Your task to perform on an android device: Show me popular videos on Youtube Image 0: 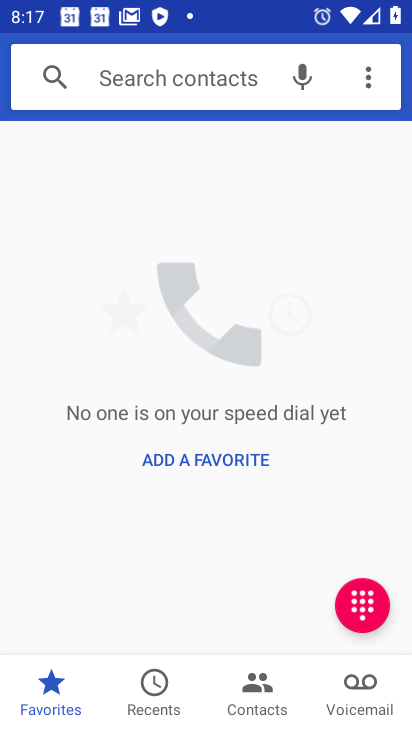
Step 0: press home button
Your task to perform on an android device: Show me popular videos on Youtube Image 1: 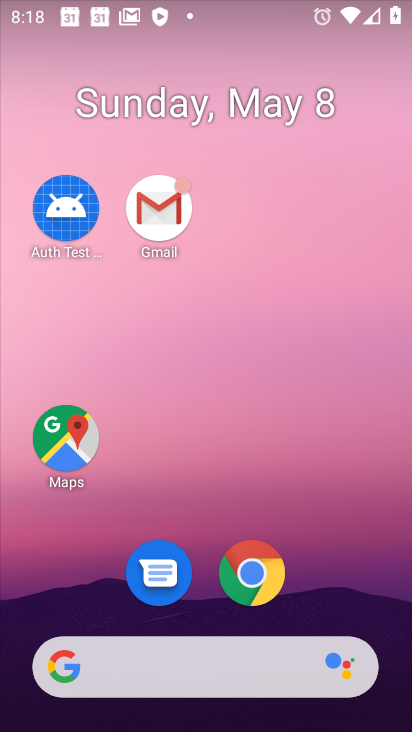
Step 1: drag from (326, 511) to (188, 60)
Your task to perform on an android device: Show me popular videos on Youtube Image 2: 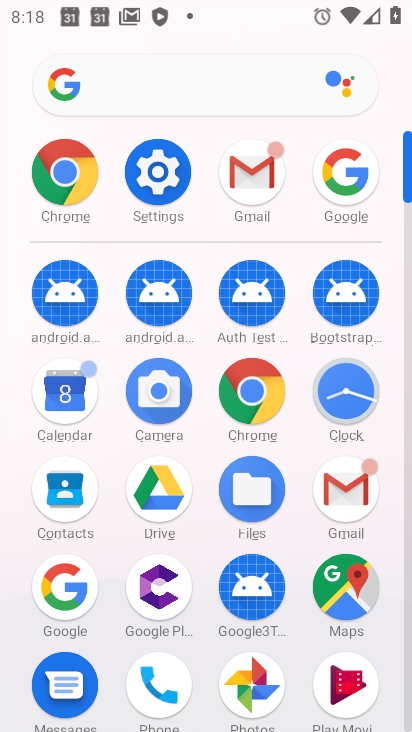
Step 2: drag from (306, 547) to (303, 187)
Your task to perform on an android device: Show me popular videos on Youtube Image 3: 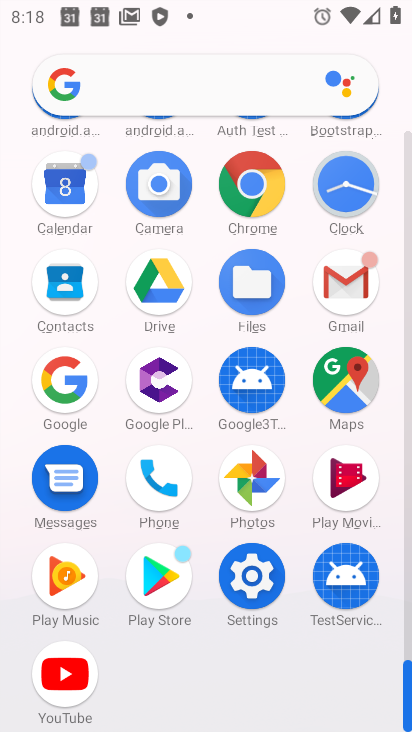
Step 3: drag from (304, 594) to (300, 107)
Your task to perform on an android device: Show me popular videos on Youtube Image 4: 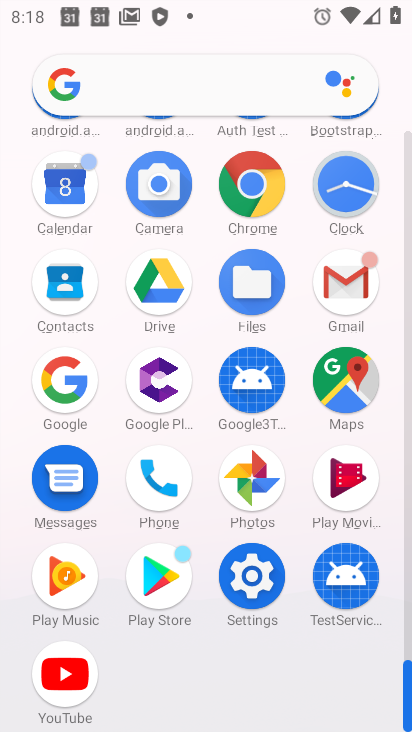
Step 4: click (60, 682)
Your task to perform on an android device: Show me popular videos on Youtube Image 5: 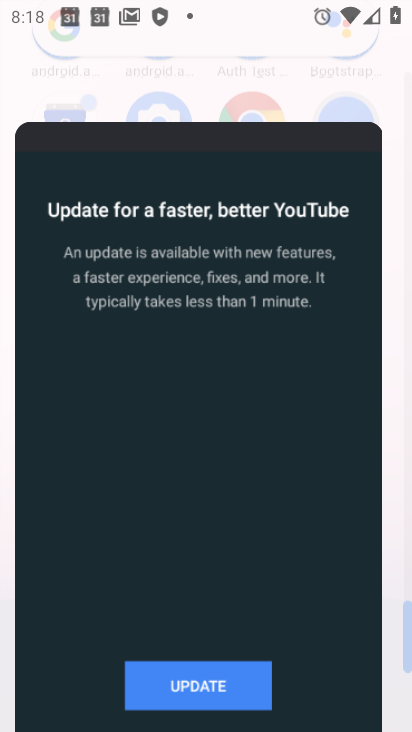
Step 5: click (60, 682)
Your task to perform on an android device: Show me popular videos on Youtube Image 6: 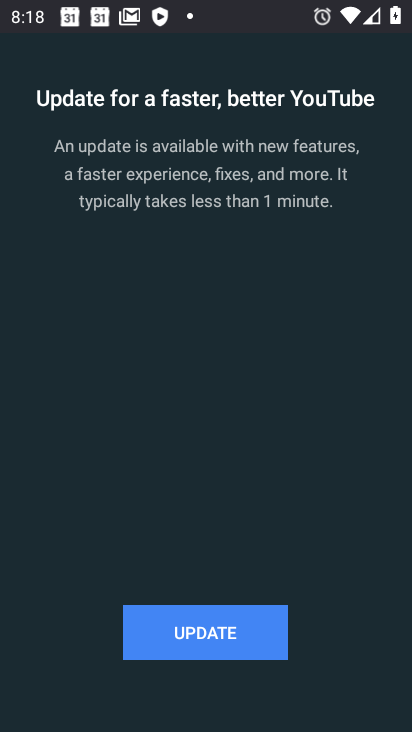
Step 6: click (203, 636)
Your task to perform on an android device: Show me popular videos on Youtube Image 7: 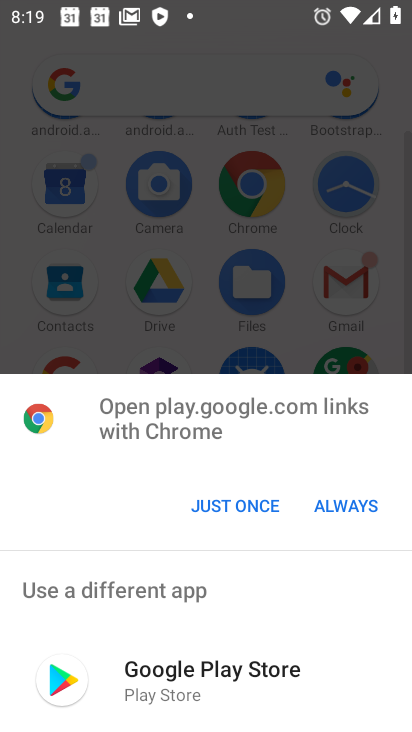
Step 7: click (234, 510)
Your task to perform on an android device: Show me popular videos on Youtube Image 8: 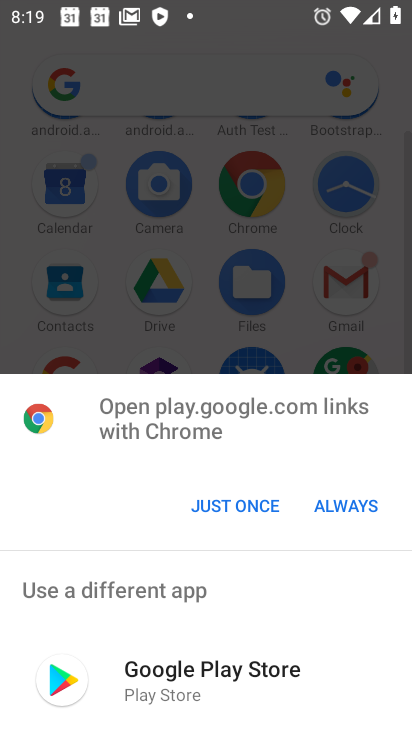
Step 8: click (235, 510)
Your task to perform on an android device: Show me popular videos on Youtube Image 9: 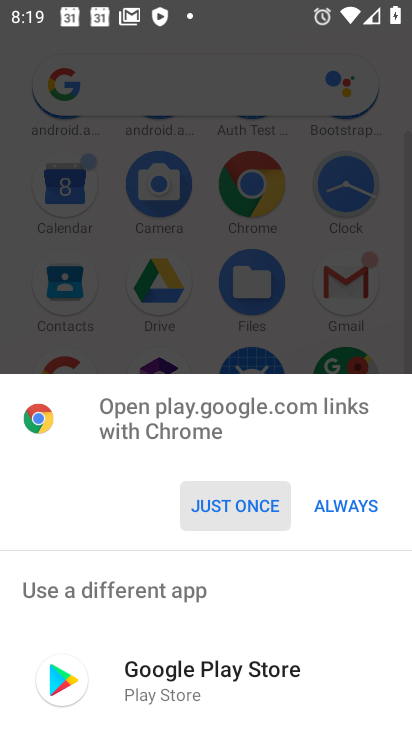
Step 9: click (235, 510)
Your task to perform on an android device: Show me popular videos on Youtube Image 10: 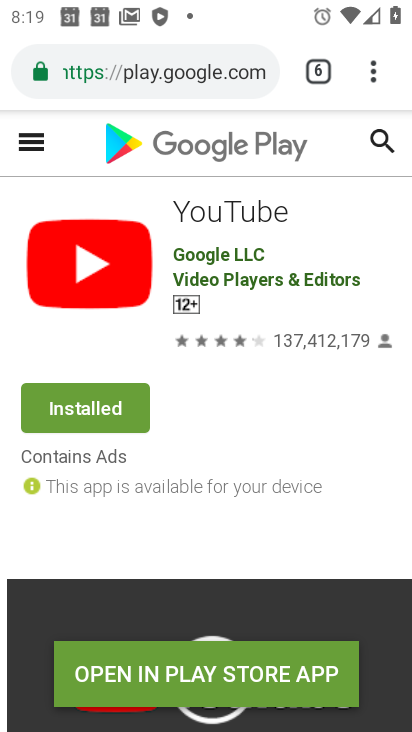
Step 10: click (94, 412)
Your task to perform on an android device: Show me popular videos on Youtube Image 11: 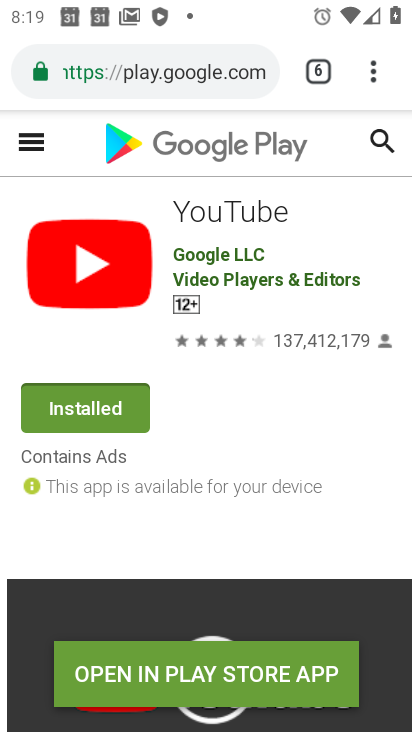
Step 11: click (93, 411)
Your task to perform on an android device: Show me popular videos on Youtube Image 12: 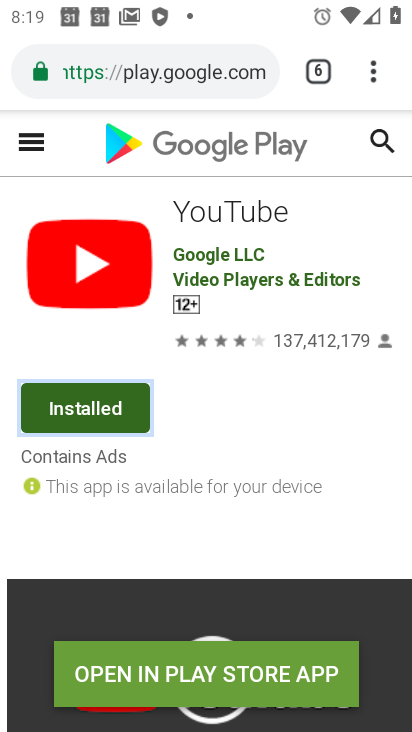
Step 12: click (93, 410)
Your task to perform on an android device: Show me popular videos on Youtube Image 13: 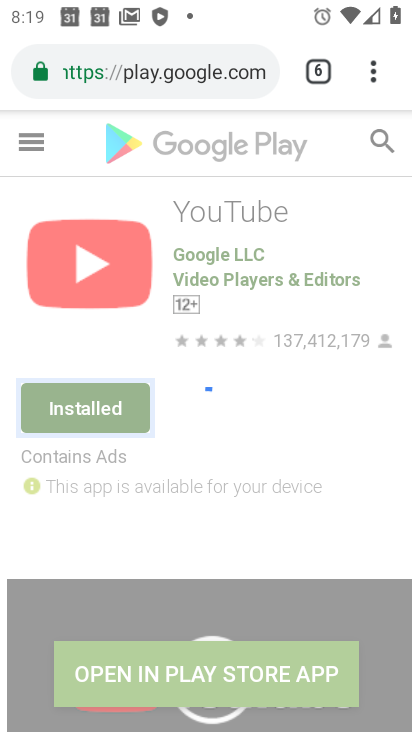
Step 13: click (93, 410)
Your task to perform on an android device: Show me popular videos on Youtube Image 14: 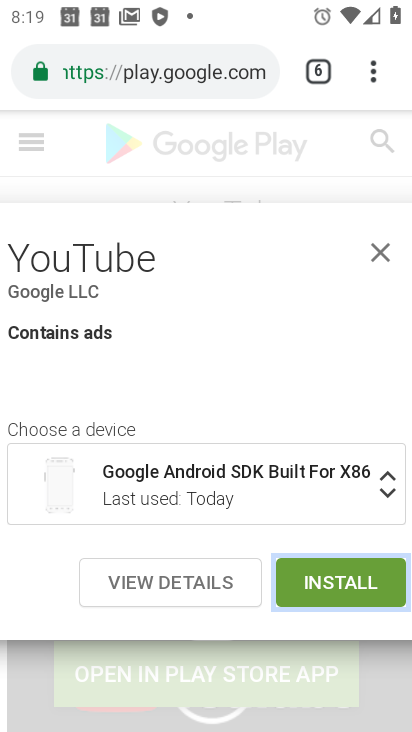
Step 14: click (336, 584)
Your task to perform on an android device: Show me popular videos on Youtube Image 15: 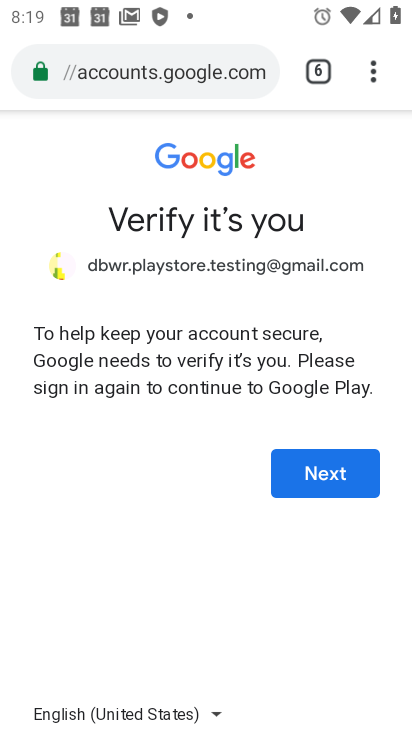
Step 15: click (341, 469)
Your task to perform on an android device: Show me popular videos on Youtube Image 16: 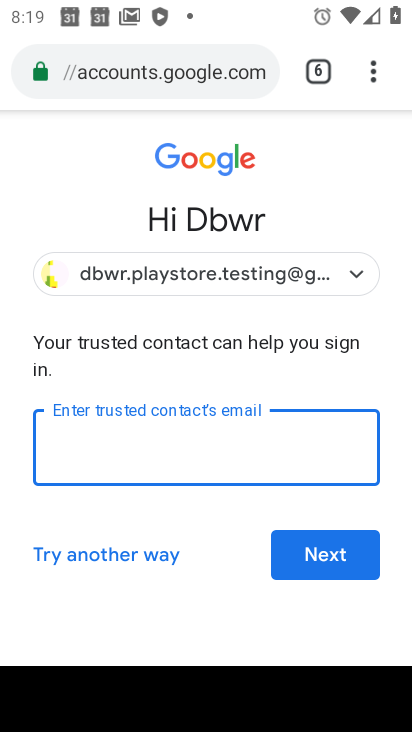
Step 16: press home button
Your task to perform on an android device: Show me popular videos on Youtube Image 17: 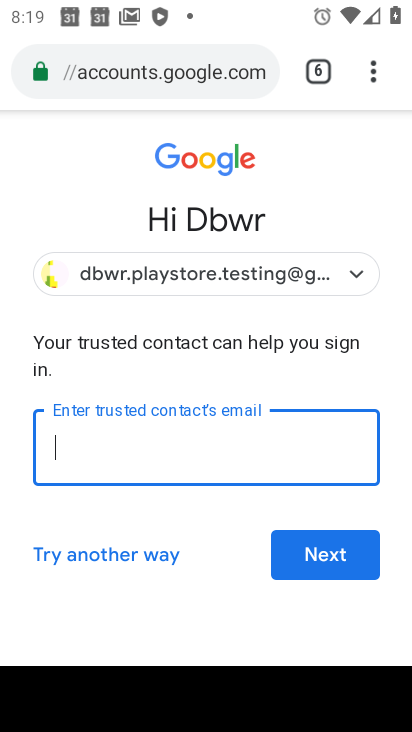
Step 17: press home button
Your task to perform on an android device: Show me popular videos on Youtube Image 18: 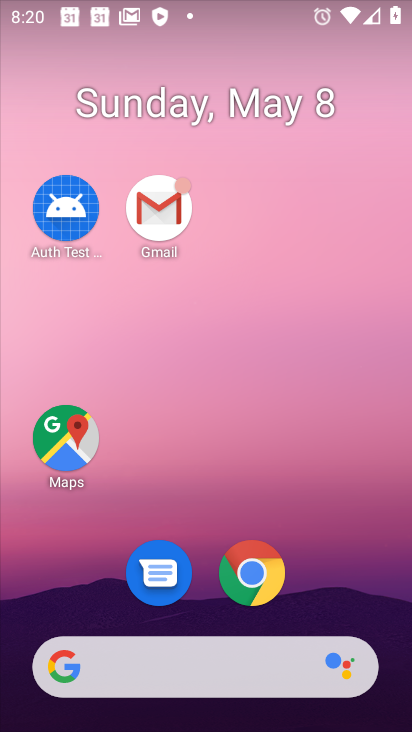
Step 18: drag from (231, 156) to (188, 27)
Your task to perform on an android device: Show me popular videos on Youtube Image 19: 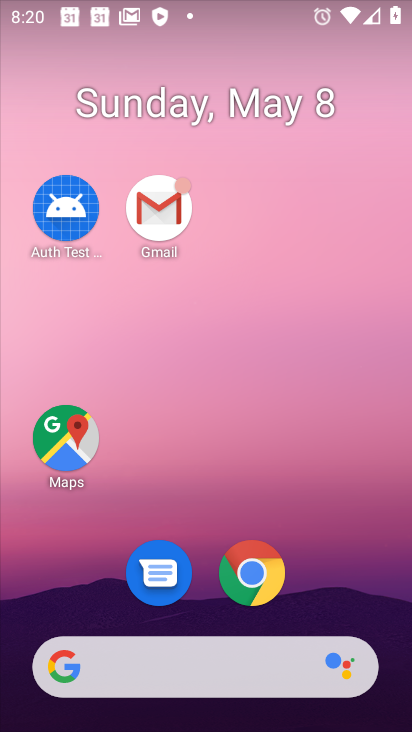
Step 19: drag from (366, 606) to (194, 49)
Your task to perform on an android device: Show me popular videos on Youtube Image 20: 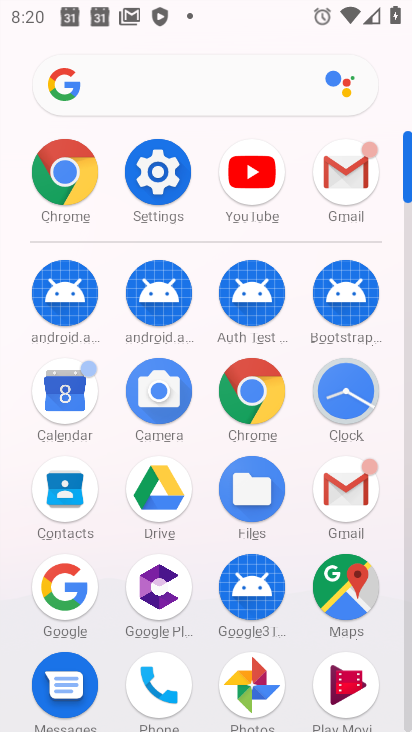
Step 20: click (248, 175)
Your task to perform on an android device: Show me popular videos on Youtube Image 21: 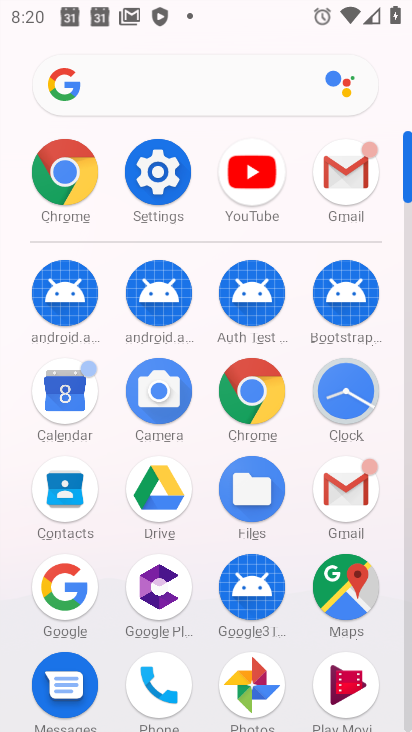
Step 21: click (248, 175)
Your task to perform on an android device: Show me popular videos on Youtube Image 22: 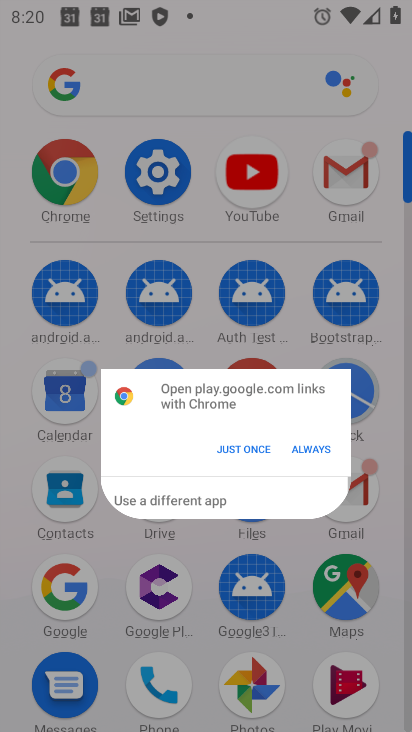
Step 22: click (248, 174)
Your task to perform on an android device: Show me popular videos on Youtube Image 23: 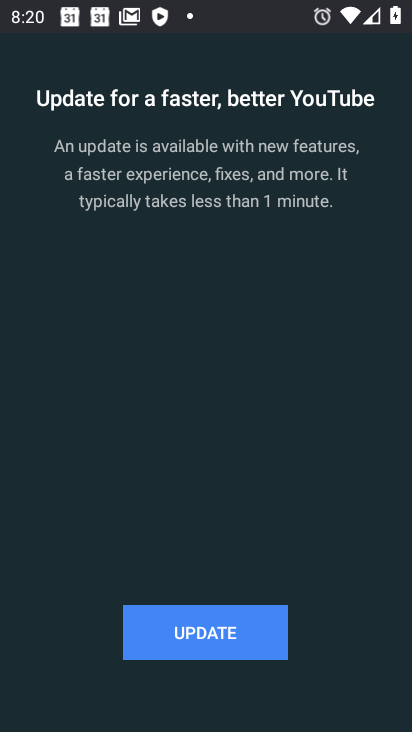
Step 23: click (203, 621)
Your task to perform on an android device: Show me popular videos on Youtube Image 24: 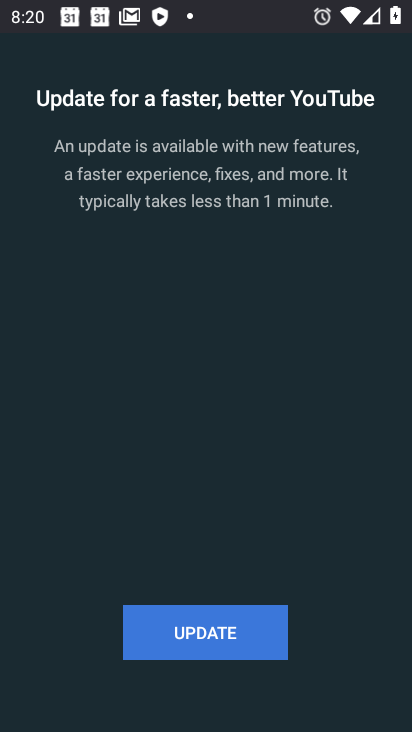
Step 24: click (203, 621)
Your task to perform on an android device: Show me popular videos on Youtube Image 25: 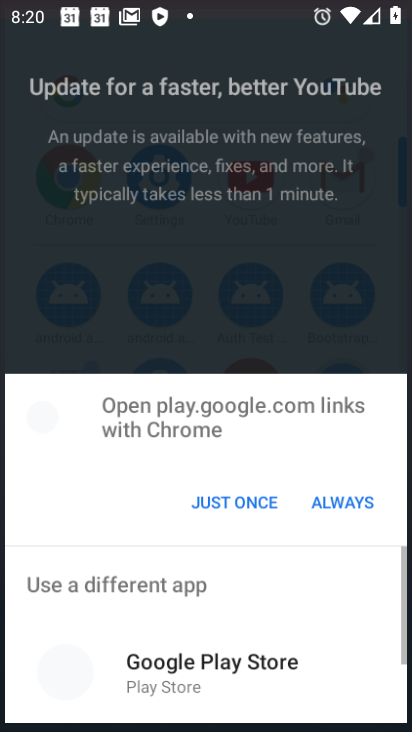
Step 25: click (203, 621)
Your task to perform on an android device: Show me popular videos on Youtube Image 26: 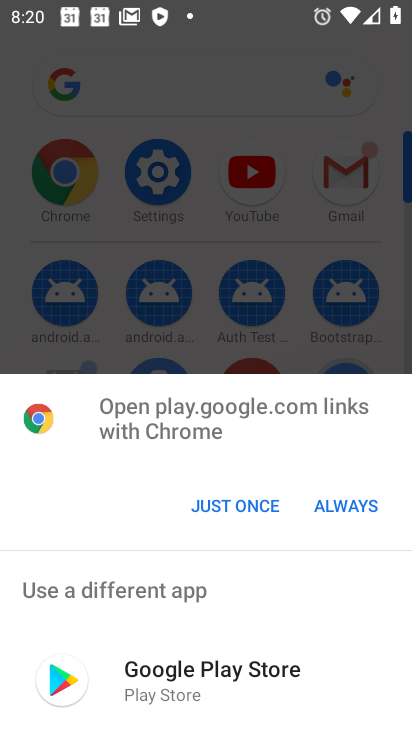
Step 26: click (171, 683)
Your task to perform on an android device: Show me popular videos on Youtube Image 27: 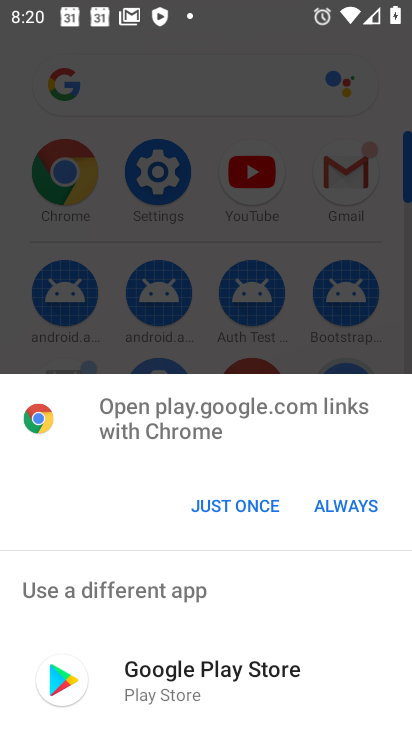
Step 27: click (169, 678)
Your task to perform on an android device: Show me popular videos on Youtube Image 28: 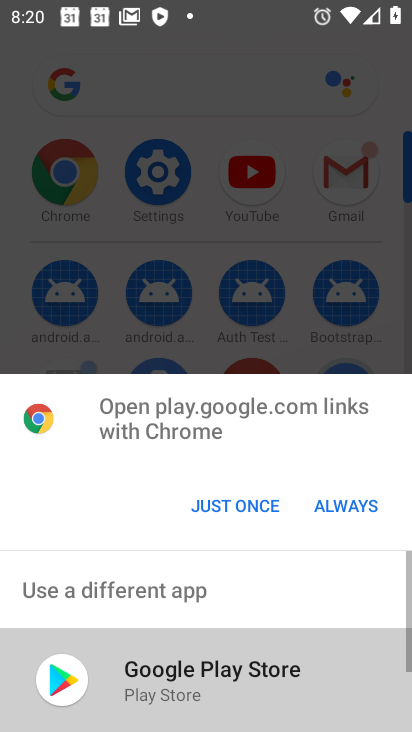
Step 28: click (167, 677)
Your task to perform on an android device: Show me popular videos on Youtube Image 29: 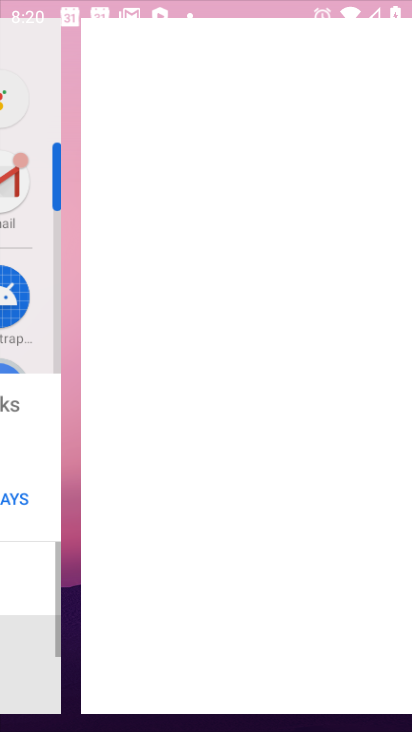
Step 29: click (167, 677)
Your task to perform on an android device: Show me popular videos on Youtube Image 30: 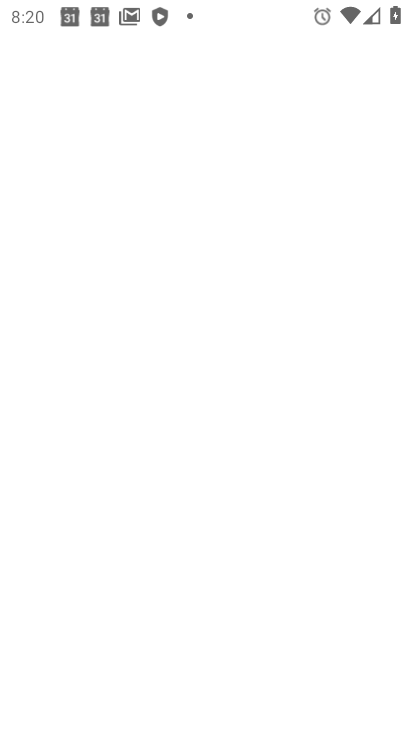
Step 30: click (167, 677)
Your task to perform on an android device: Show me popular videos on Youtube Image 31: 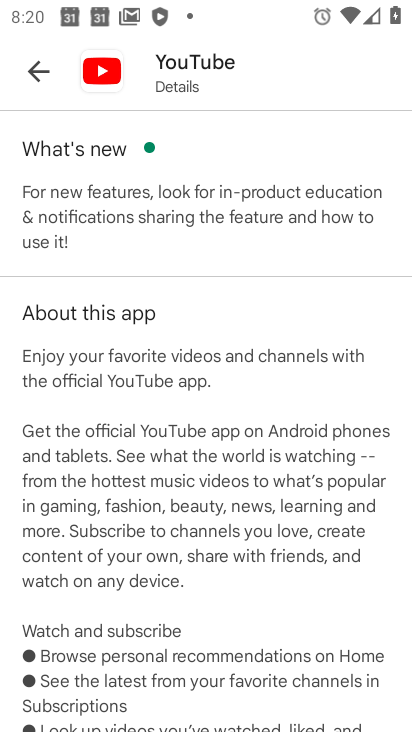
Step 31: click (43, 73)
Your task to perform on an android device: Show me popular videos on Youtube Image 32: 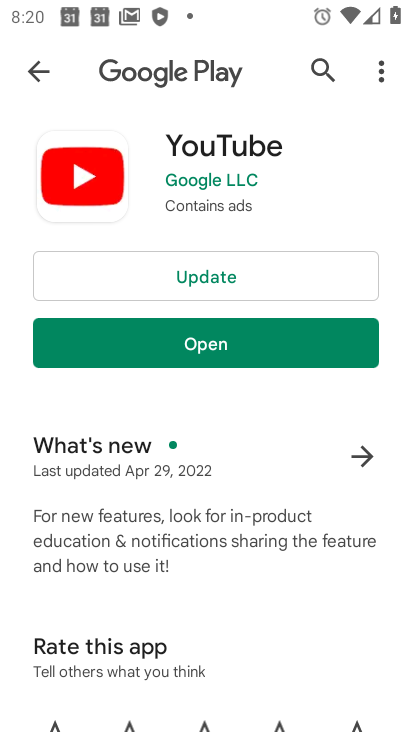
Step 32: click (221, 350)
Your task to perform on an android device: Show me popular videos on Youtube Image 33: 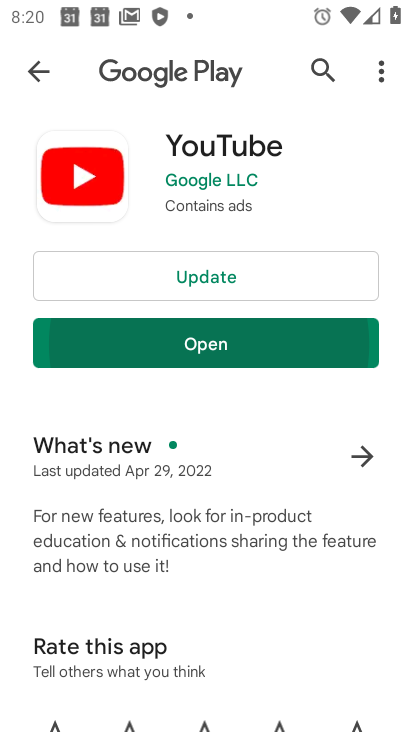
Step 33: click (221, 350)
Your task to perform on an android device: Show me popular videos on Youtube Image 34: 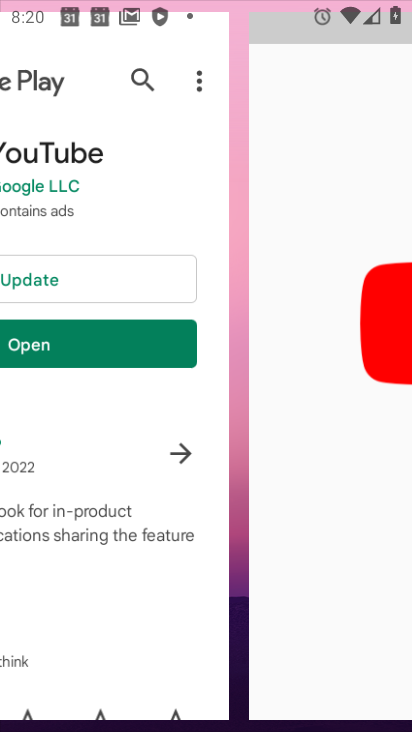
Step 34: click (221, 350)
Your task to perform on an android device: Show me popular videos on Youtube Image 35: 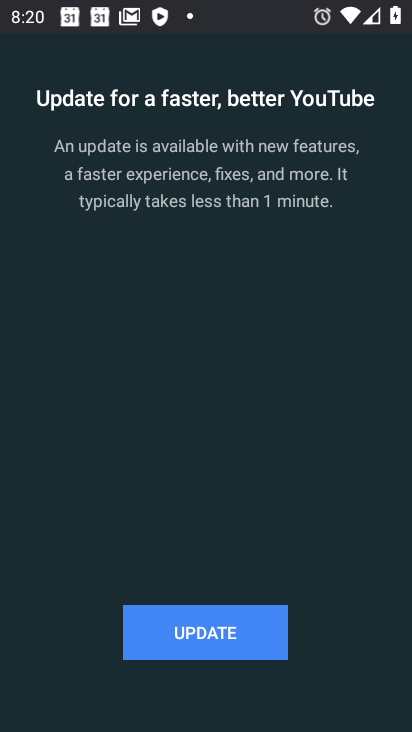
Step 35: click (222, 373)
Your task to perform on an android device: Show me popular videos on Youtube Image 36: 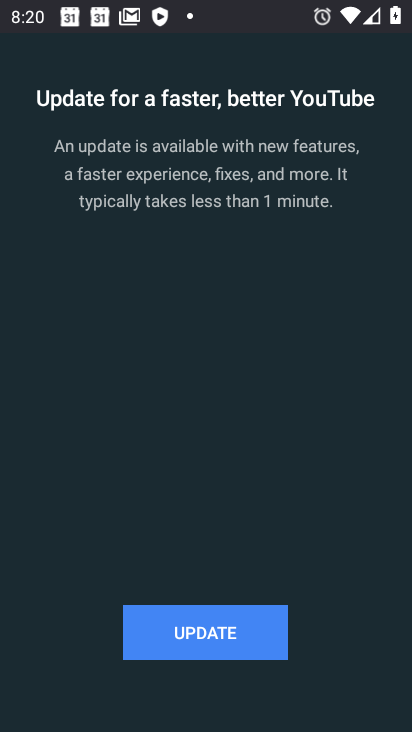
Step 36: click (216, 620)
Your task to perform on an android device: Show me popular videos on Youtube Image 37: 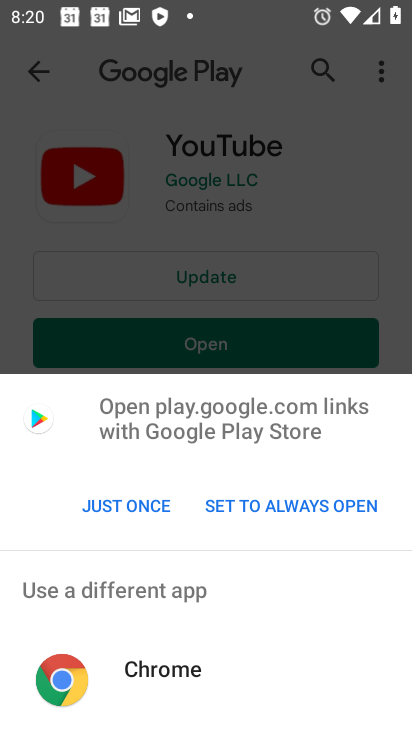
Step 37: click (163, 679)
Your task to perform on an android device: Show me popular videos on Youtube Image 38: 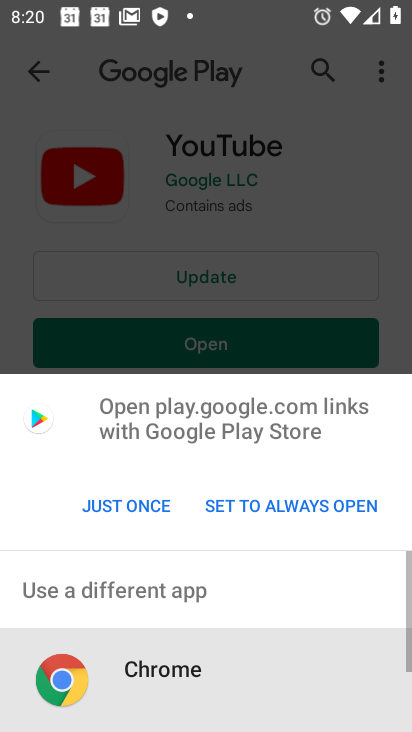
Step 38: click (166, 668)
Your task to perform on an android device: Show me popular videos on Youtube Image 39: 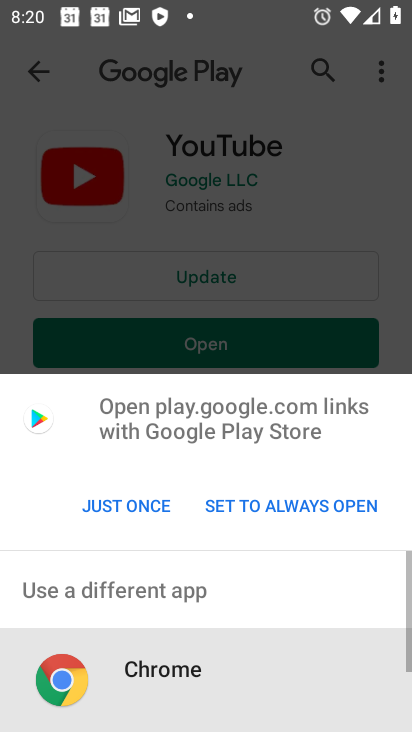
Step 39: click (166, 668)
Your task to perform on an android device: Show me popular videos on Youtube Image 40: 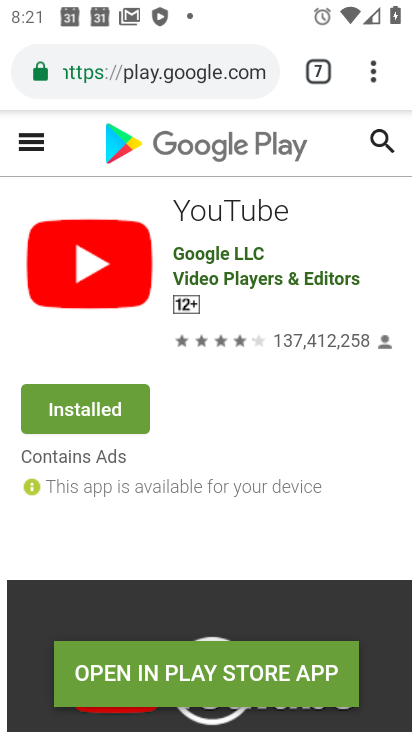
Step 40: click (69, 406)
Your task to perform on an android device: Show me popular videos on Youtube Image 41: 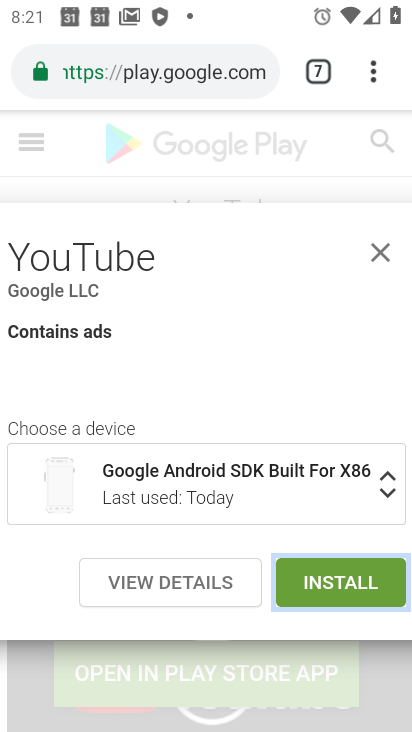
Step 41: click (348, 584)
Your task to perform on an android device: Show me popular videos on Youtube Image 42: 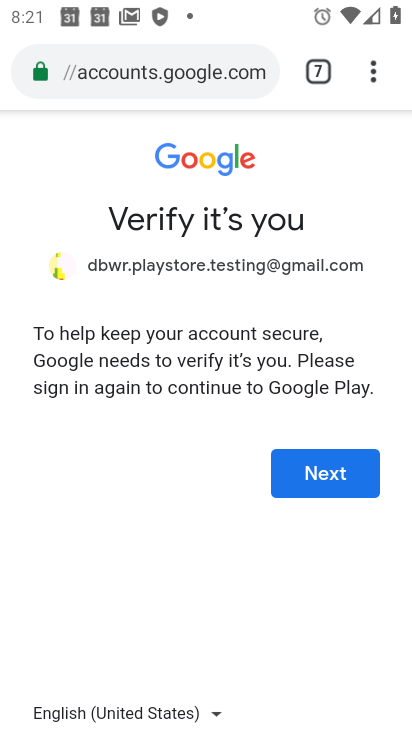
Step 42: click (336, 472)
Your task to perform on an android device: Show me popular videos on Youtube Image 43: 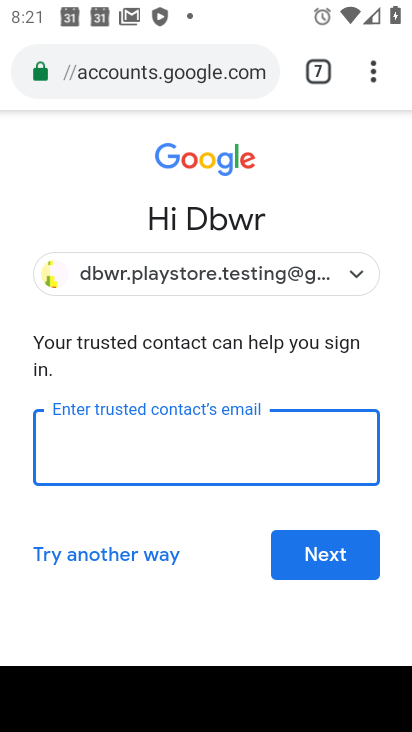
Step 43: click (339, 539)
Your task to perform on an android device: Show me popular videos on Youtube Image 44: 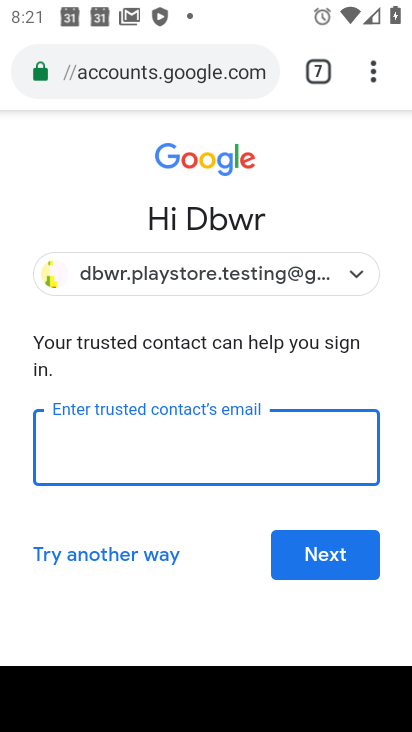
Step 44: click (339, 539)
Your task to perform on an android device: Show me popular videos on Youtube Image 45: 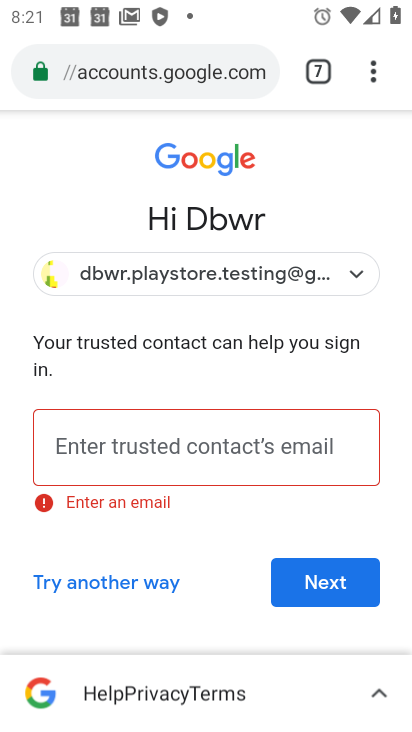
Step 45: press home button
Your task to perform on an android device: Show me popular videos on Youtube Image 46: 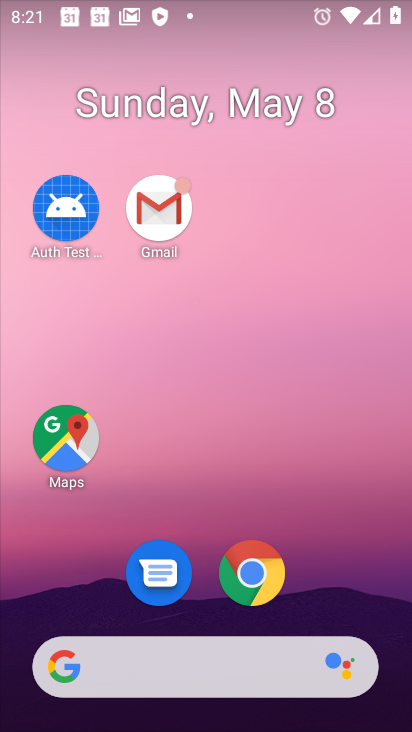
Step 46: drag from (304, 505) to (186, 53)
Your task to perform on an android device: Show me popular videos on Youtube Image 47: 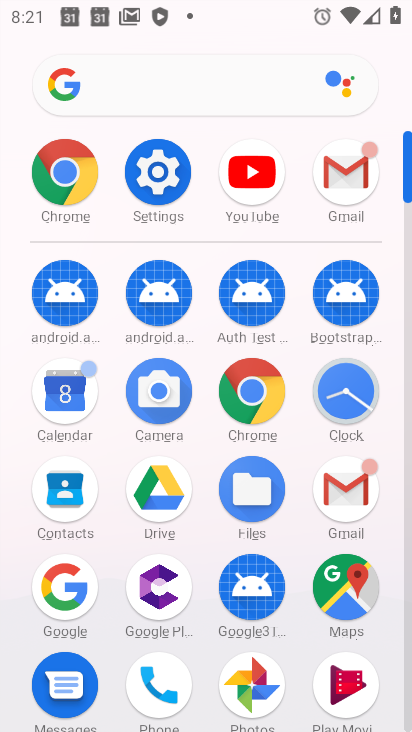
Step 47: click (251, 172)
Your task to perform on an android device: Show me popular videos on Youtube Image 48: 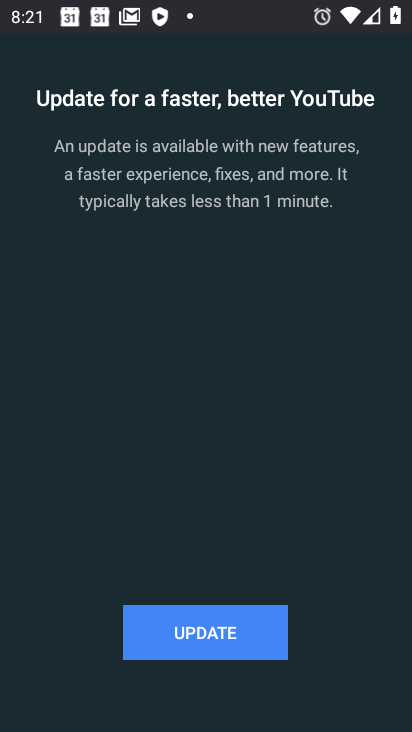
Step 48: click (241, 636)
Your task to perform on an android device: Show me popular videos on Youtube Image 49: 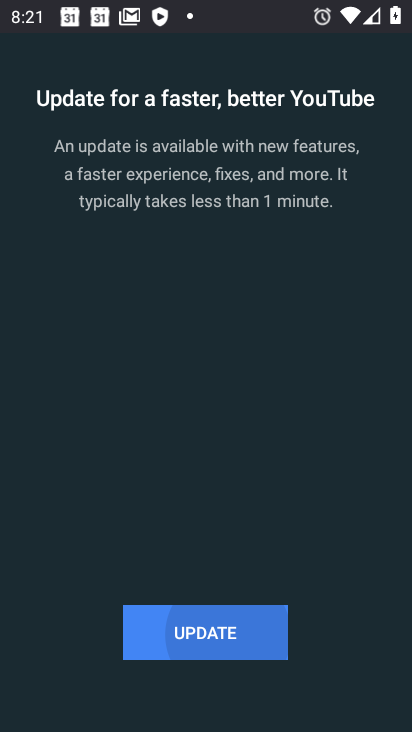
Step 49: click (241, 636)
Your task to perform on an android device: Show me popular videos on Youtube Image 50: 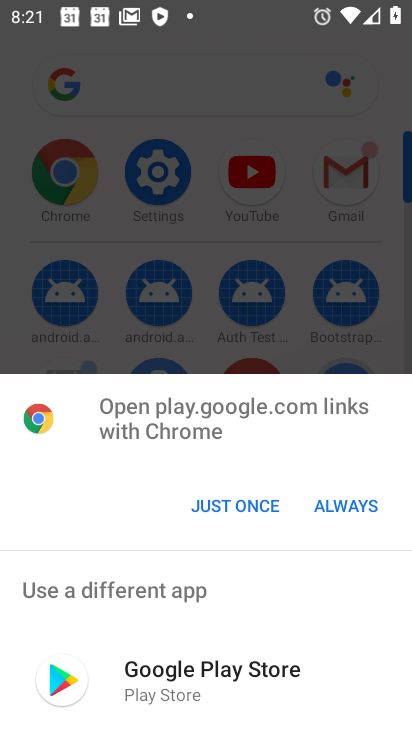
Step 50: click (193, 678)
Your task to perform on an android device: Show me popular videos on Youtube Image 51: 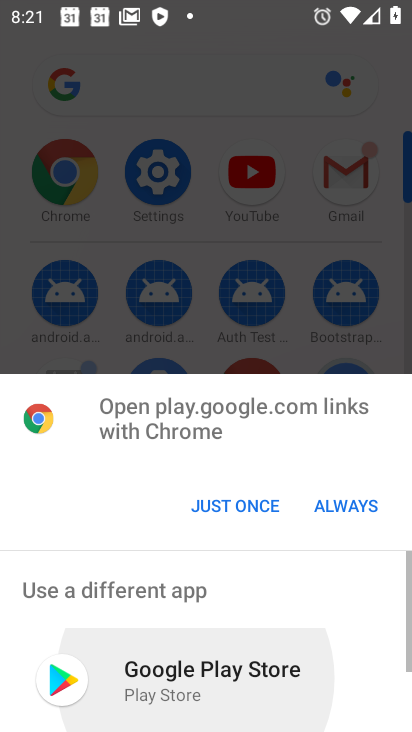
Step 51: click (193, 675)
Your task to perform on an android device: Show me popular videos on Youtube Image 52: 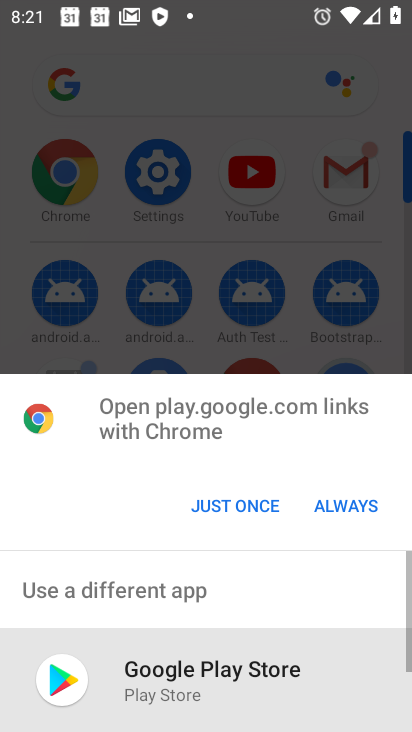
Step 52: click (193, 675)
Your task to perform on an android device: Show me popular videos on Youtube Image 53: 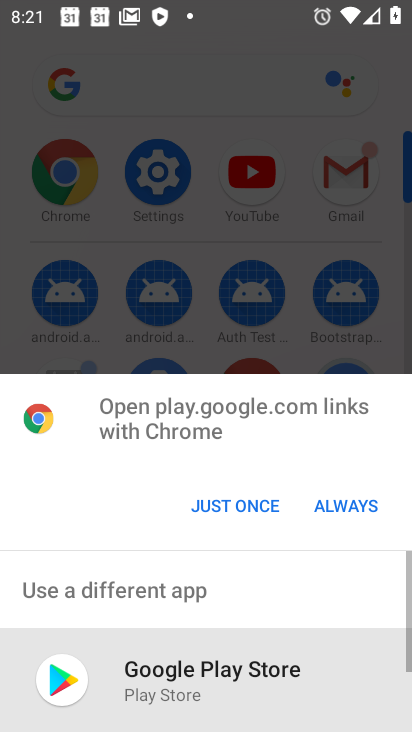
Step 53: click (192, 674)
Your task to perform on an android device: Show me popular videos on Youtube Image 54: 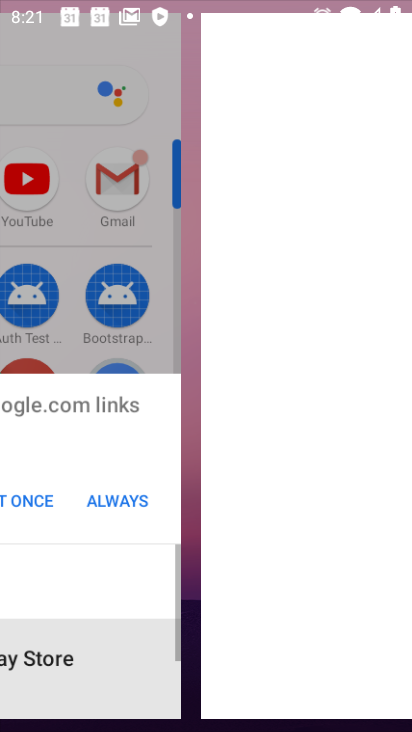
Step 54: click (189, 673)
Your task to perform on an android device: Show me popular videos on Youtube Image 55: 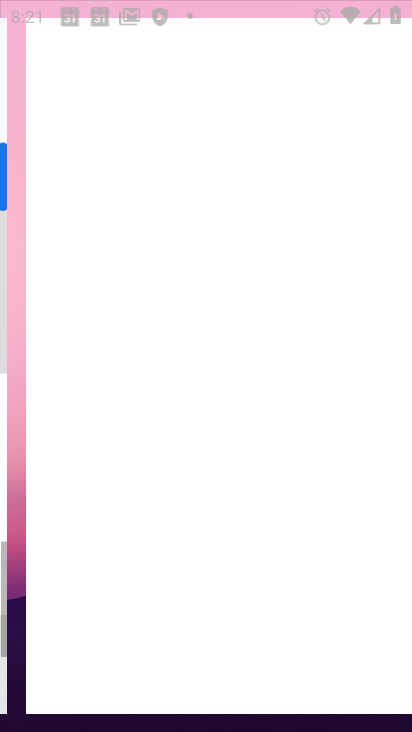
Step 55: click (189, 673)
Your task to perform on an android device: Show me popular videos on Youtube Image 56: 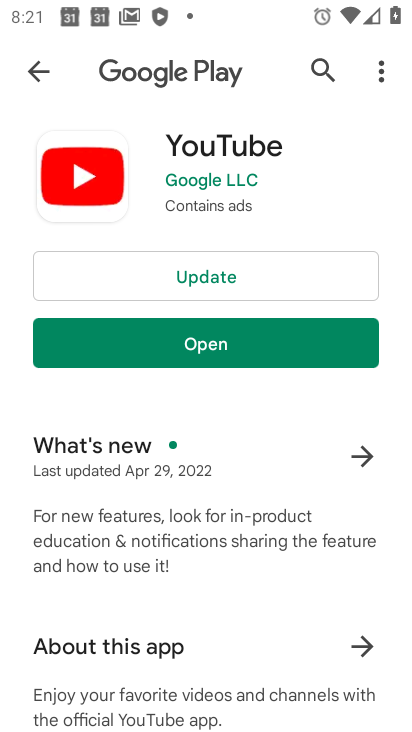
Step 56: click (189, 673)
Your task to perform on an android device: Show me popular videos on Youtube Image 57: 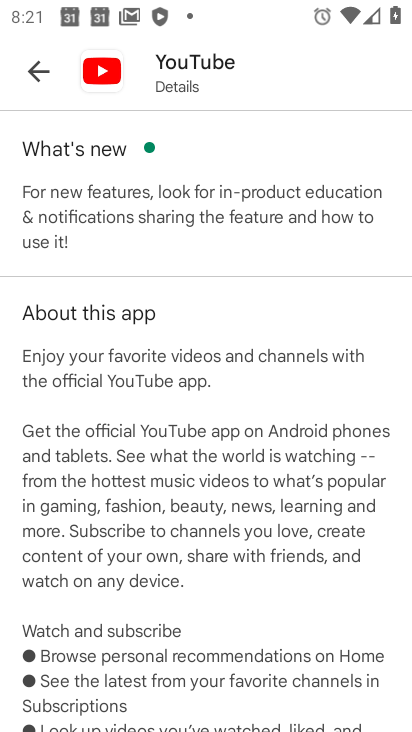
Step 57: click (39, 76)
Your task to perform on an android device: Show me popular videos on Youtube Image 58: 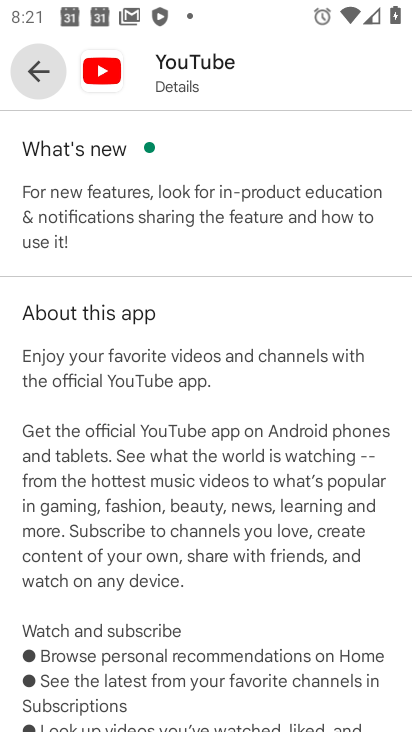
Step 58: click (39, 76)
Your task to perform on an android device: Show me popular videos on Youtube Image 59: 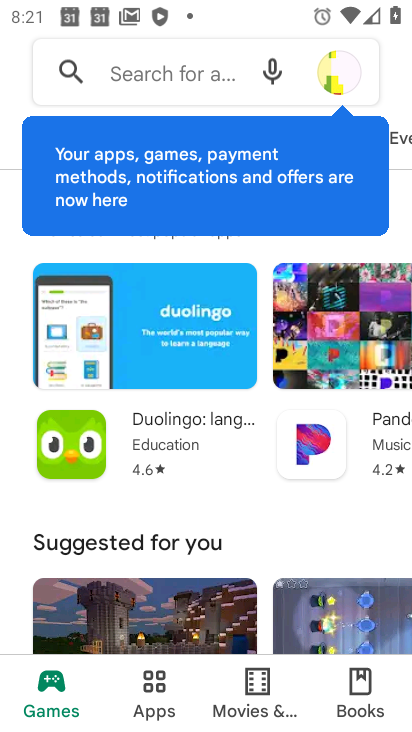
Step 59: task complete